Your task to perform on an android device: Do I have any events today? Image 0: 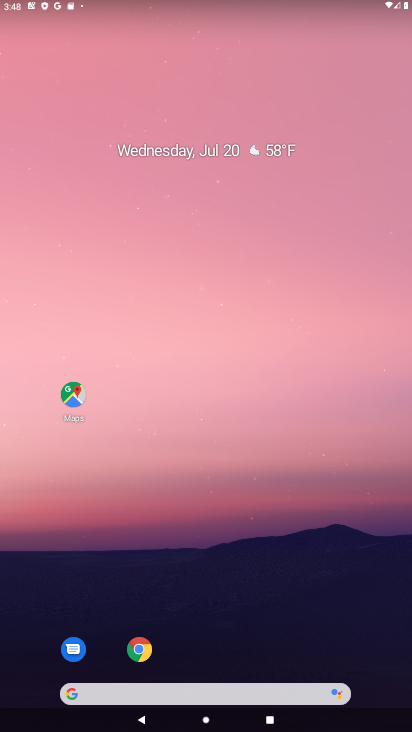
Step 0: click (132, 730)
Your task to perform on an android device: Do I have any events today? Image 1: 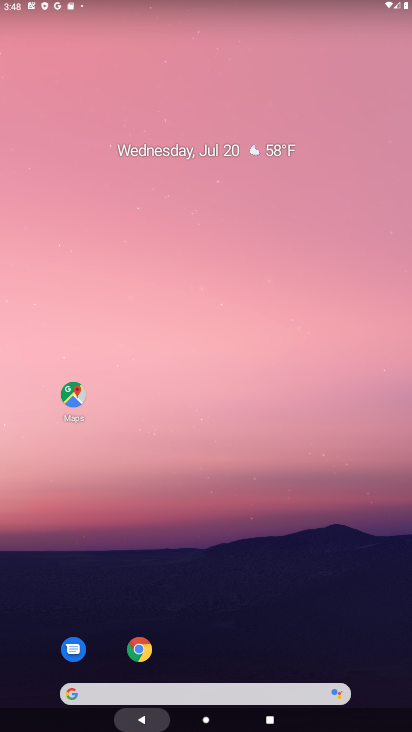
Step 1: drag from (227, 652) to (207, 330)
Your task to perform on an android device: Do I have any events today? Image 2: 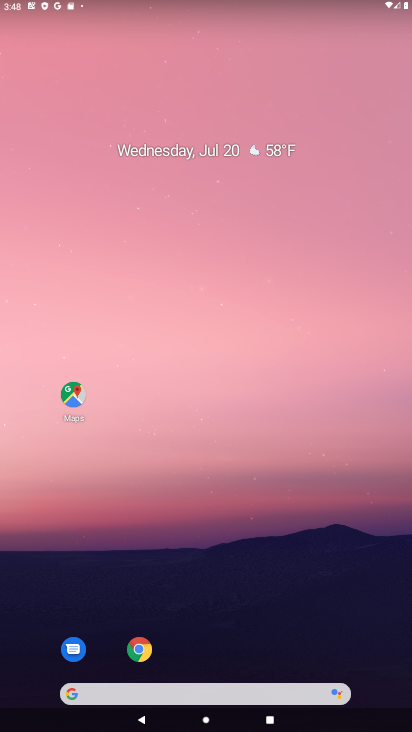
Step 2: drag from (241, 526) to (241, 36)
Your task to perform on an android device: Do I have any events today? Image 3: 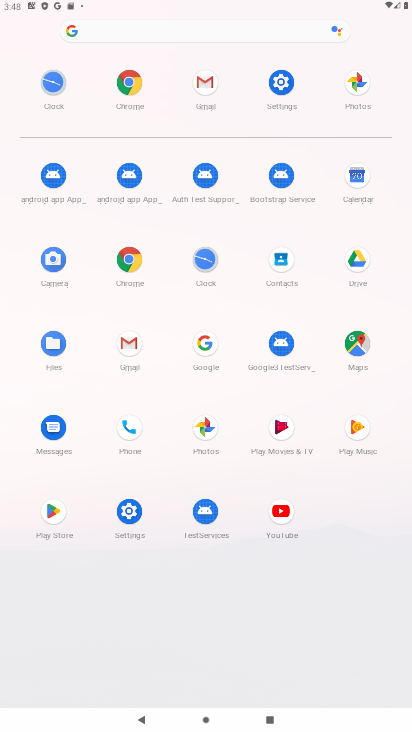
Step 3: click (358, 178)
Your task to perform on an android device: Do I have any events today? Image 4: 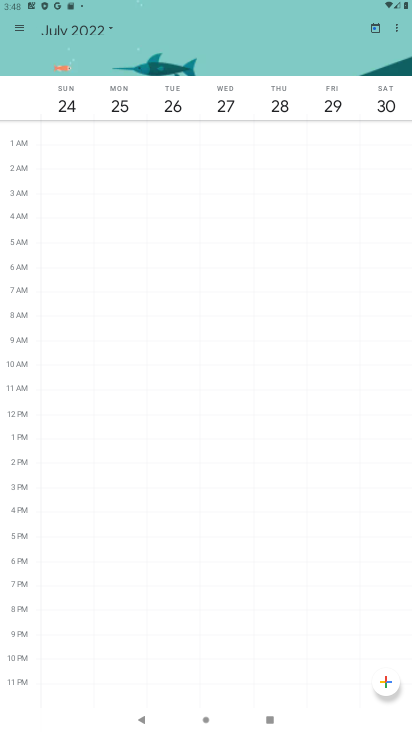
Step 4: click (110, 26)
Your task to perform on an android device: Do I have any events today? Image 5: 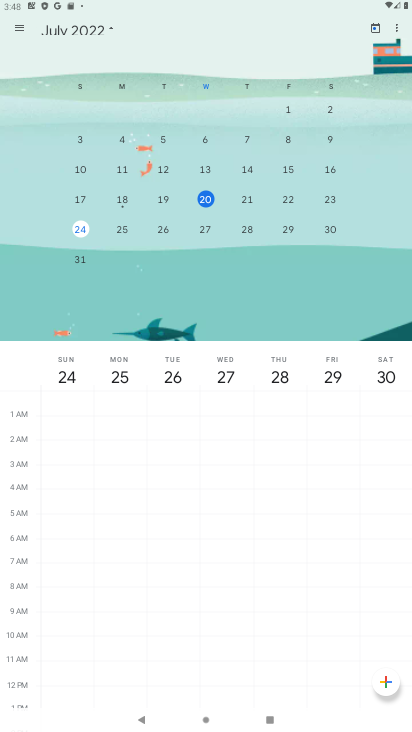
Step 5: click (206, 199)
Your task to perform on an android device: Do I have any events today? Image 6: 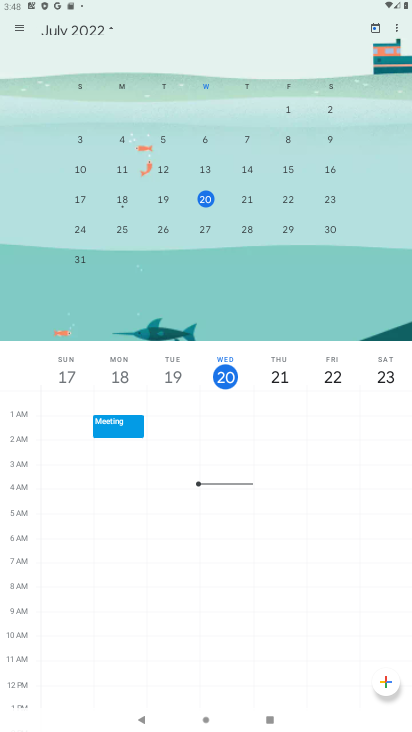
Step 6: click (222, 375)
Your task to perform on an android device: Do I have any events today? Image 7: 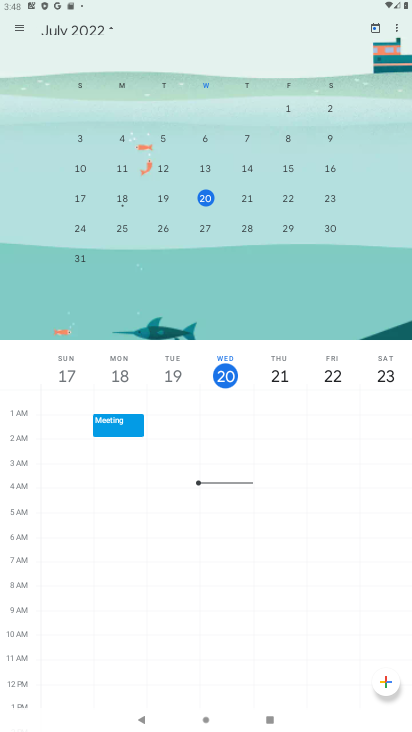
Step 7: click (223, 374)
Your task to perform on an android device: Do I have any events today? Image 8: 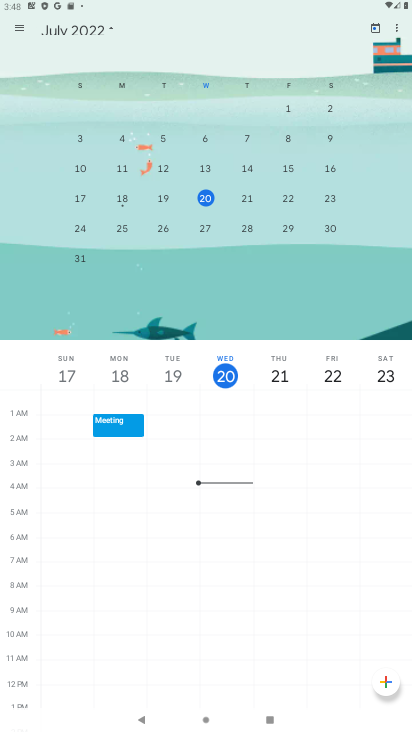
Step 8: click (223, 374)
Your task to perform on an android device: Do I have any events today? Image 9: 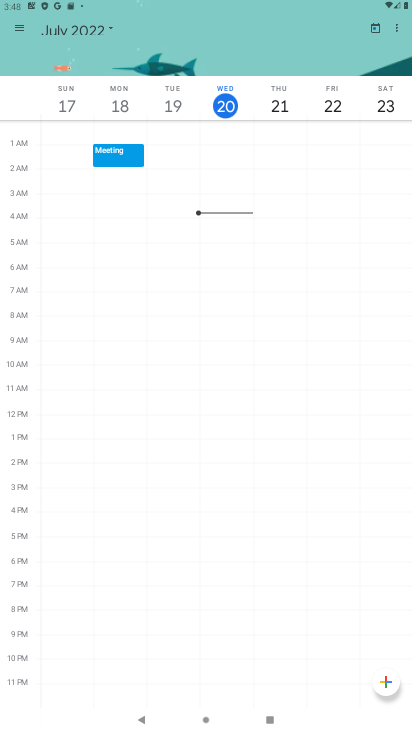
Step 9: click (229, 102)
Your task to perform on an android device: Do I have any events today? Image 10: 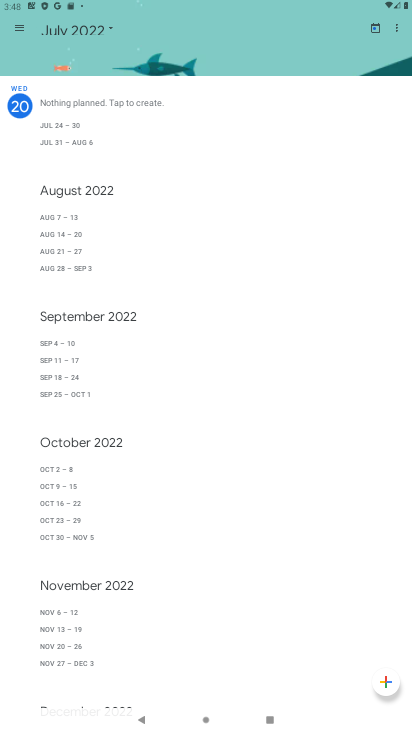
Step 10: task complete